Your task to perform on an android device: Open the web browser Image 0: 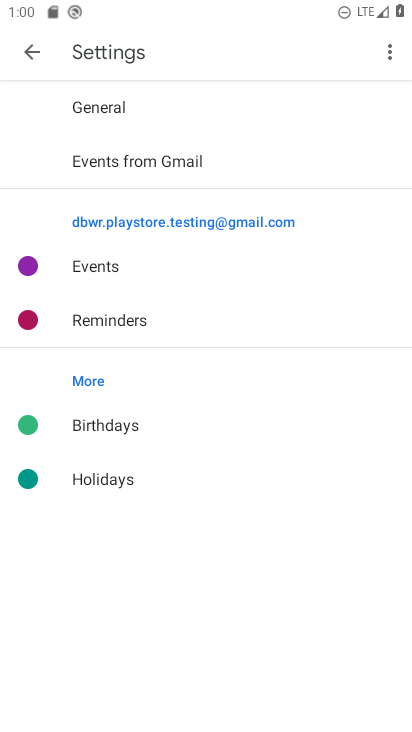
Step 0: press home button
Your task to perform on an android device: Open the web browser Image 1: 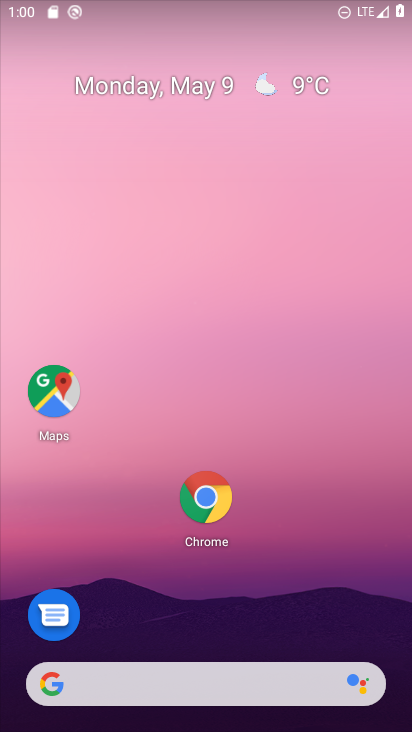
Step 1: click (224, 505)
Your task to perform on an android device: Open the web browser Image 2: 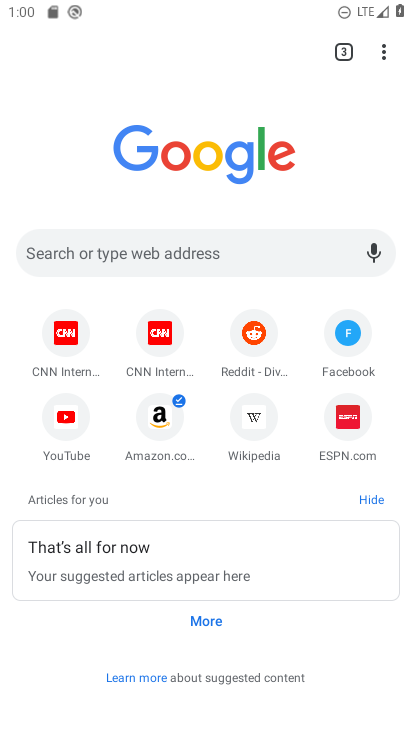
Step 2: task complete